Your task to perform on an android device: change notification settings in the gmail app Image 0: 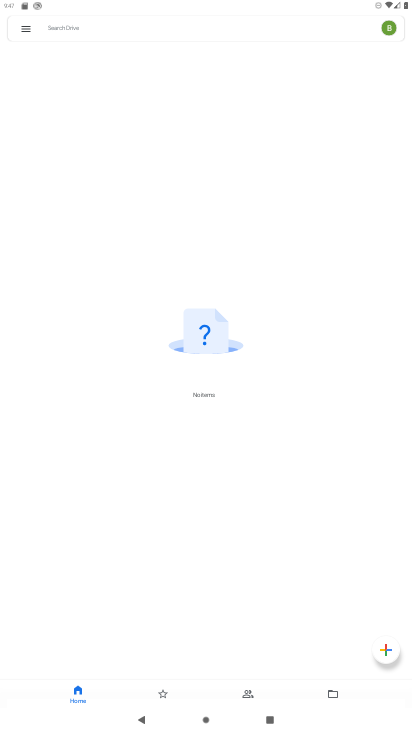
Step 0: press home button
Your task to perform on an android device: change notification settings in the gmail app Image 1: 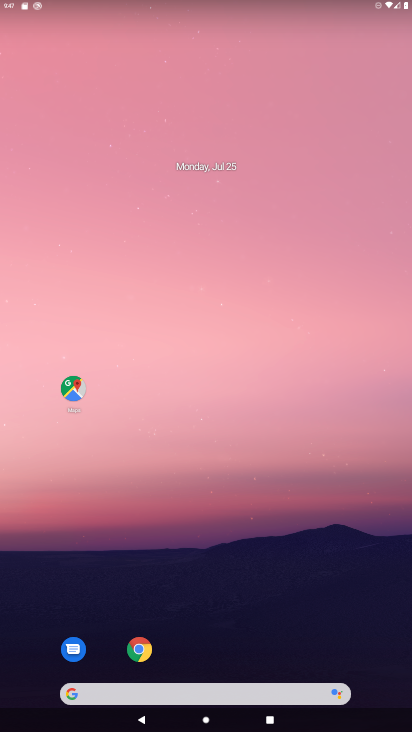
Step 1: drag from (204, 527) to (191, 11)
Your task to perform on an android device: change notification settings in the gmail app Image 2: 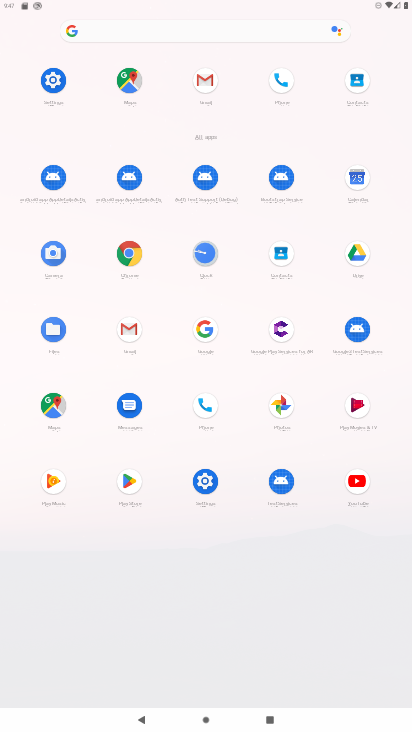
Step 2: click (130, 328)
Your task to perform on an android device: change notification settings in the gmail app Image 3: 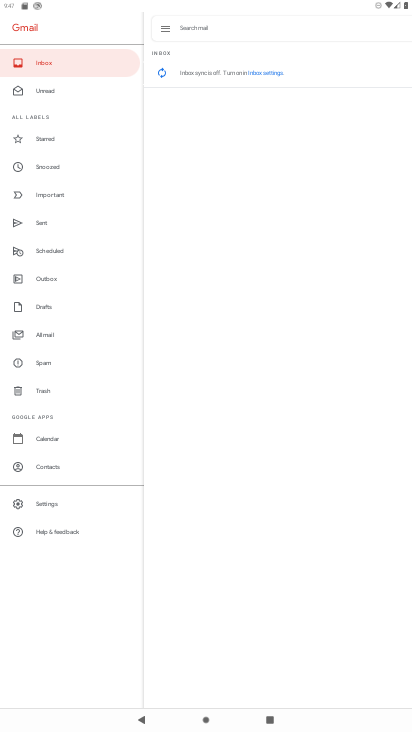
Step 3: click (45, 505)
Your task to perform on an android device: change notification settings in the gmail app Image 4: 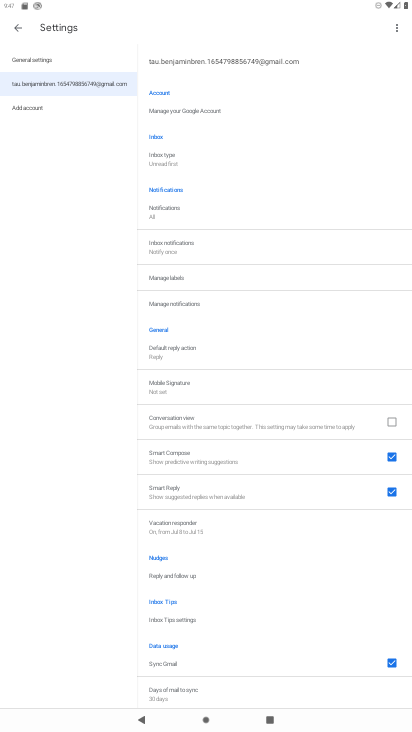
Step 4: click (52, 56)
Your task to perform on an android device: change notification settings in the gmail app Image 5: 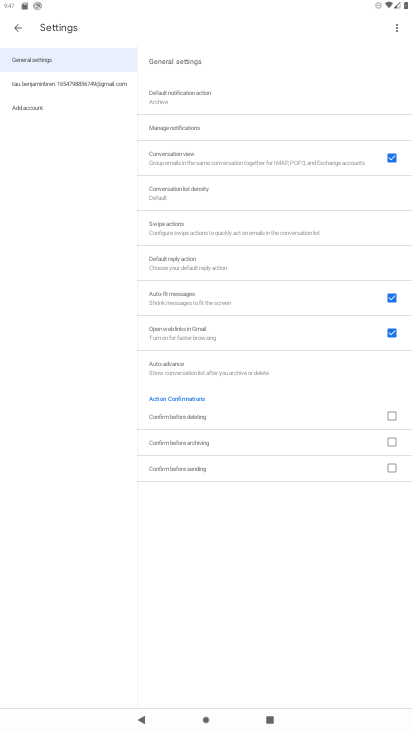
Step 5: click (169, 130)
Your task to perform on an android device: change notification settings in the gmail app Image 6: 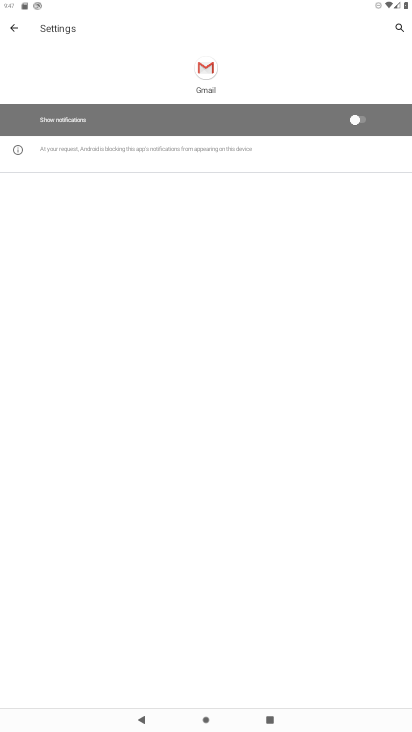
Step 6: click (373, 121)
Your task to perform on an android device: change notification settings in the gmail app Image 7: 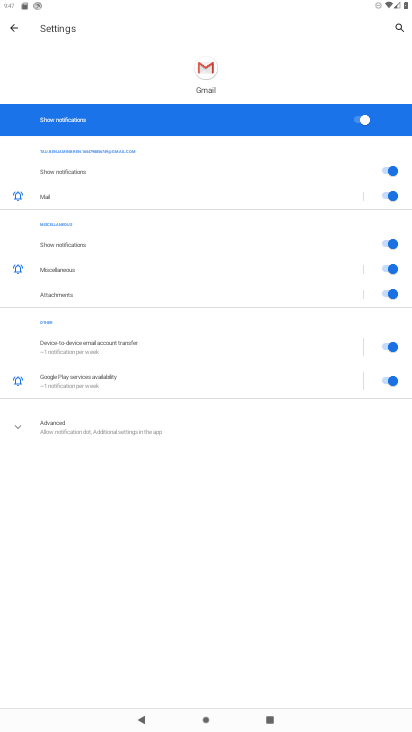
Step 7: task complete